Your task to perform on an android device: clear all cookies in the chrome app Image 0: 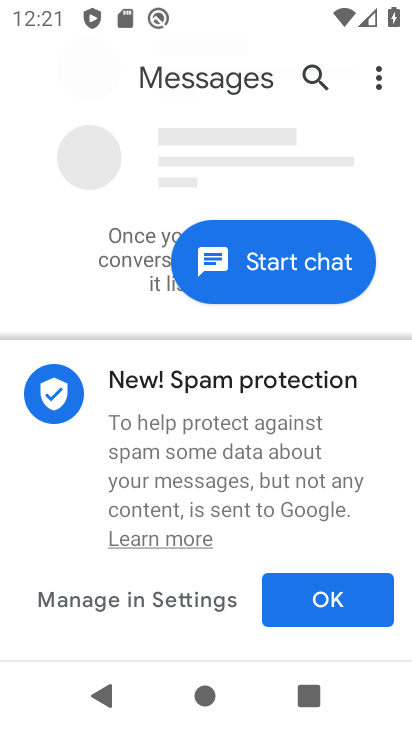
Step 0: press home button
Your task to perform on an android device: clear all cookies in the chrome app Image 1: 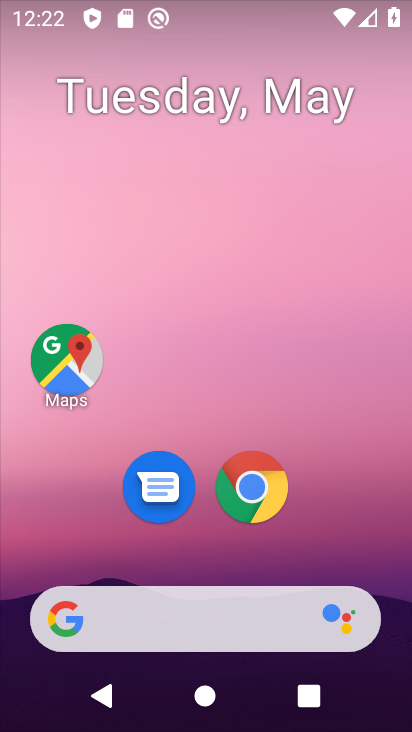
Step 1: click (260, 497)
Your task to perform on an android device: clear all cookies in the chrome app Image 2: 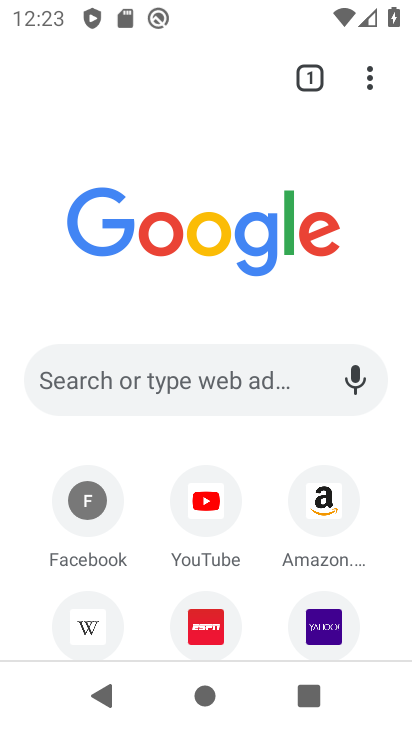
Step 2: click (377, 76)
Your task to perform on an android device: clear all cookies in the chrome app Image 3: 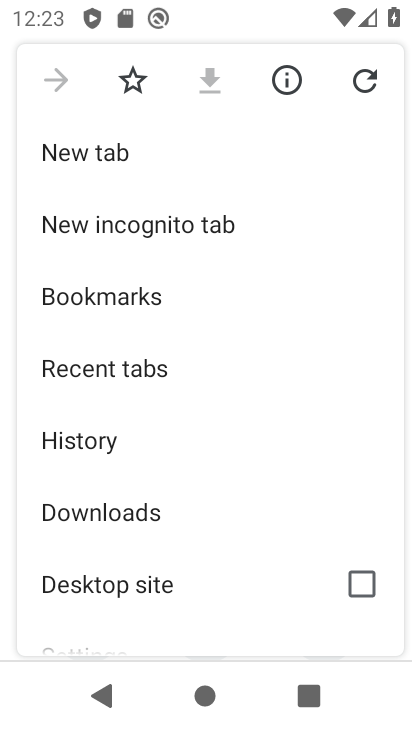
Step 3: click (110, 441)
Your task to perform on an android device: clear all cookies in the chrome app Image 4: 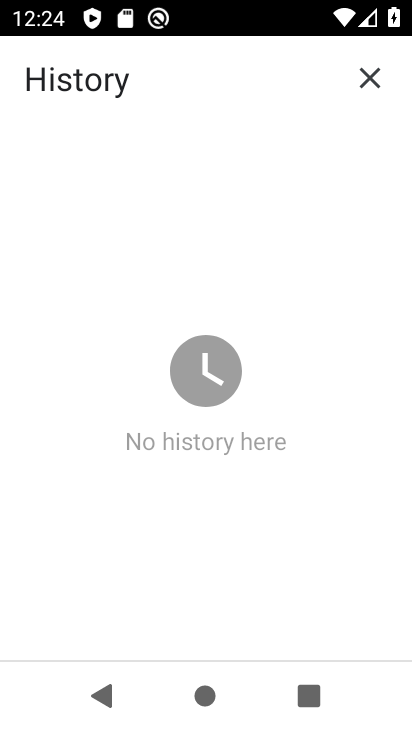
Step 4: task complete